Your task to perform on an android device: turn off priority inbox in the gmail app Image 0: 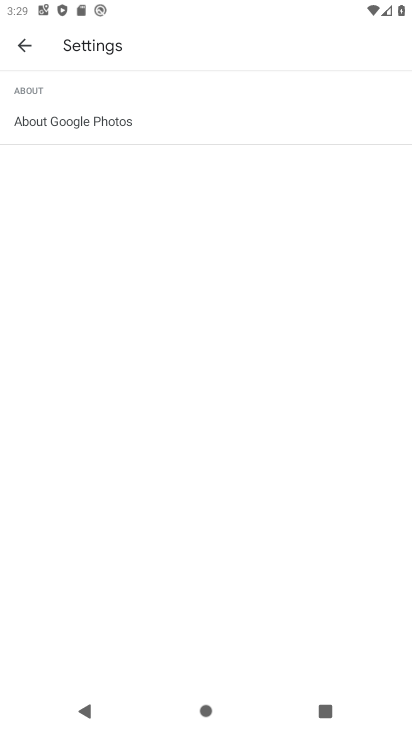
Step 0: press home button
Your task to perform on an android device: turn off priority inbox in the gmail app Image 1: 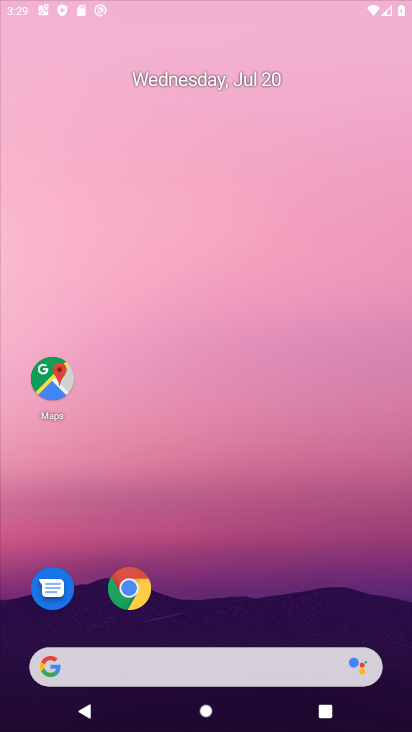
Step 1: drag from (295, 559) to (312, 53)
Your task to perform on an android device: turn off priority inbox in the gmail app Image 2: 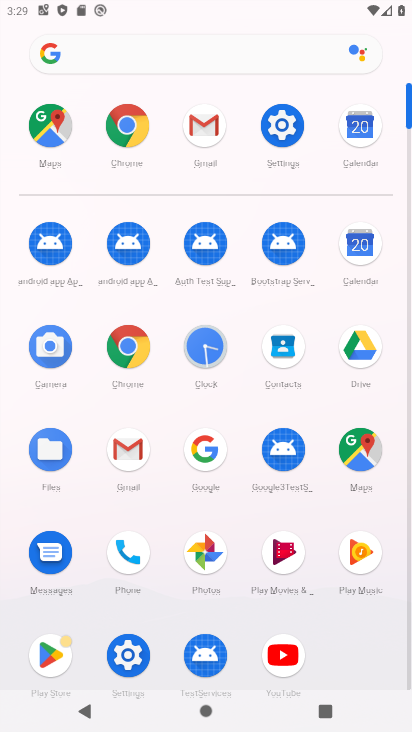
Step 2: click (199, 129)
Your task to perform on an android device: turn off priority inbox in the gmail app Image 3: 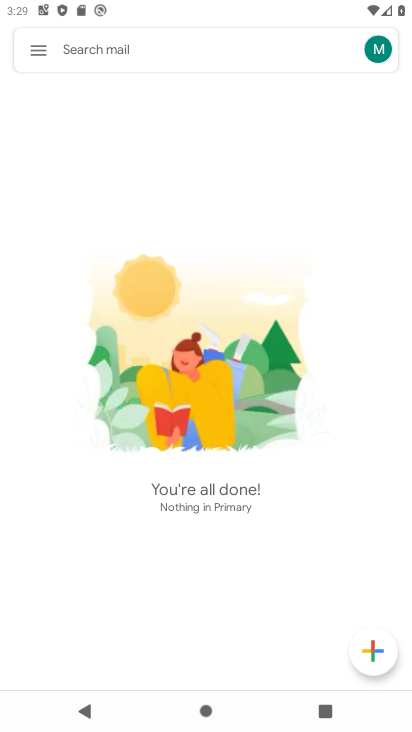
Step 3: click (39, 49)
Your task to perform on an android device: turn off priority inbox in the gmail app Image 4: 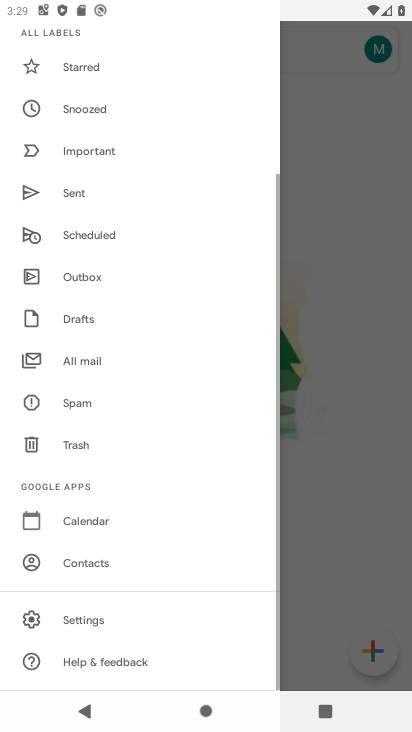
Step 4: click (72, 620)
Your task to perform on an android device: turn off priority inbox in the gmail app Image 5: 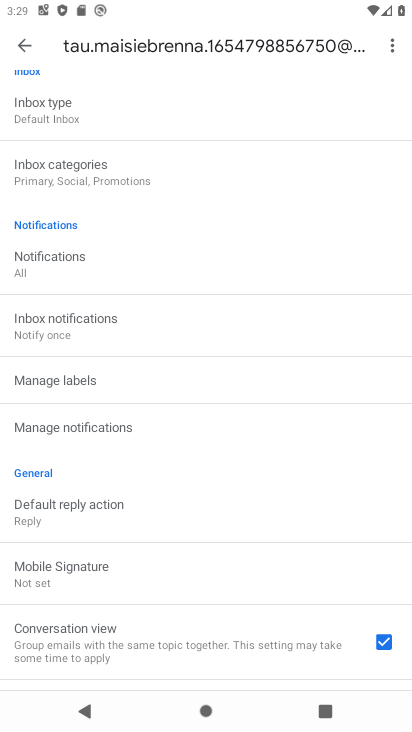
Step 5: click (71, 118)
Your task to perform on an android device: turn off priority inbox in the gmail app Image 6: 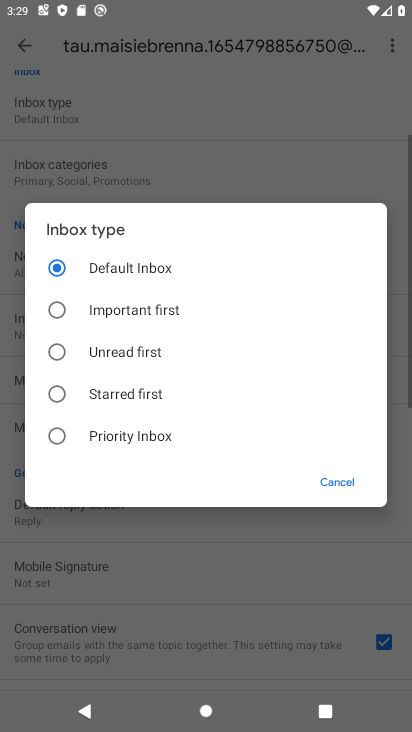
Step 6: task complete